Your task to perform on an android device: empty trash in the gmail app Image 0: 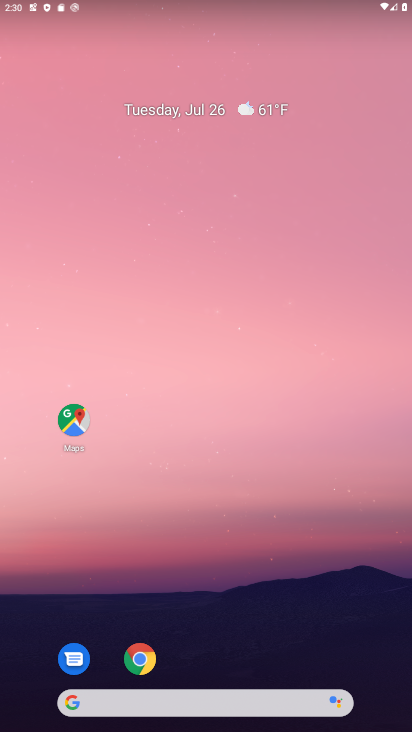
Step 0: drag from (215, 558) to (291, 0)
Your task to perform on an android device: empty trash in the gmail app Image 1: 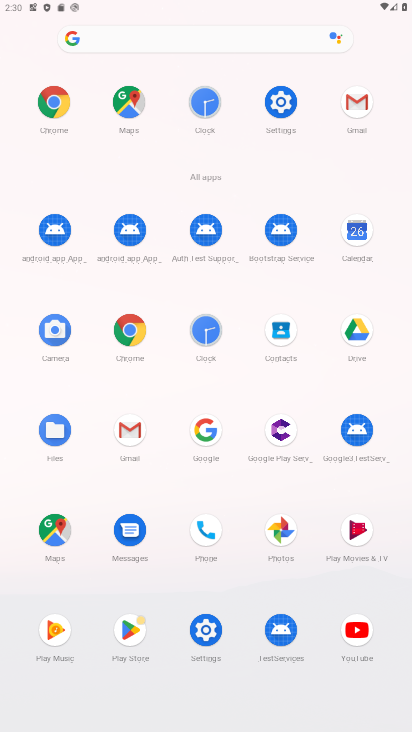
Step 1: click (355, 115)
Your task to perform on an android device: empty trash in the gmail app Image 2: 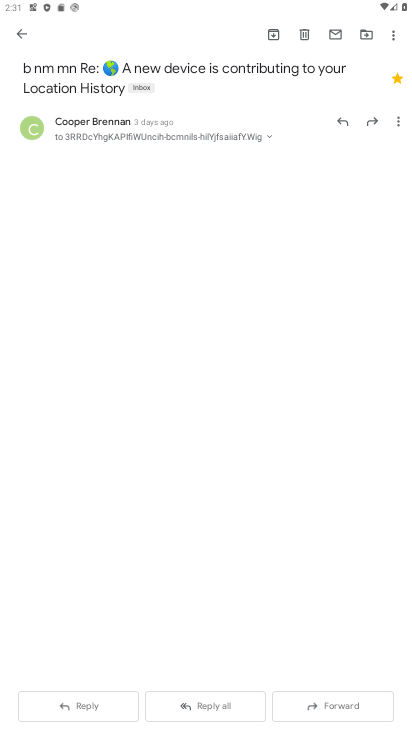
Step 2: click (22, 31)
Your task to perform on an android device: empty trash in the gmail app Image 3: 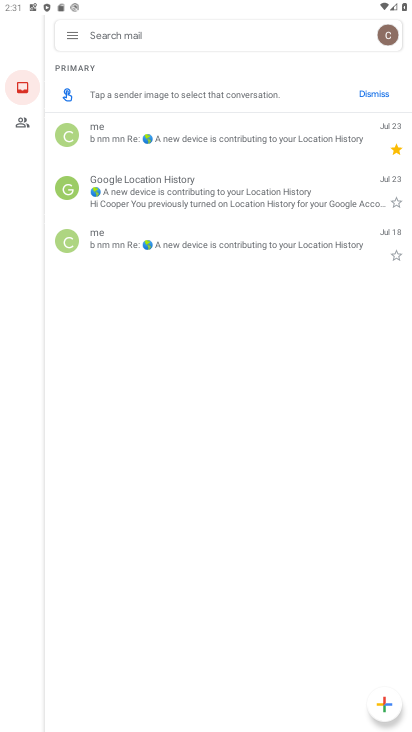
Step 3: click (71, 33)
Your task to perform on an android device: empty trash in the gmail app Image 4: 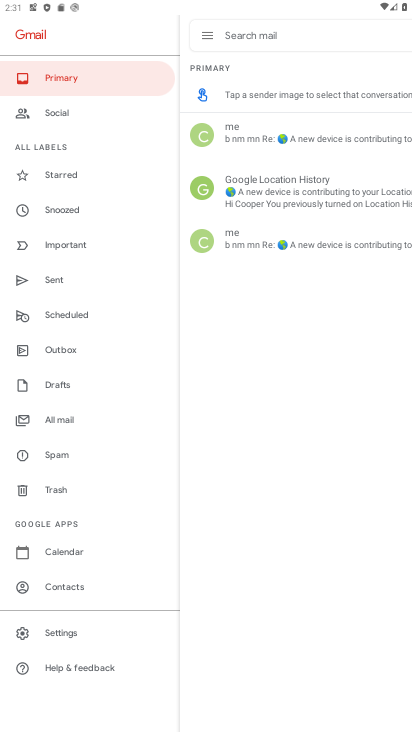
Step 4: click (59, 477)
Your task to perform on an android device: empty trash in the gmail app Image 5: 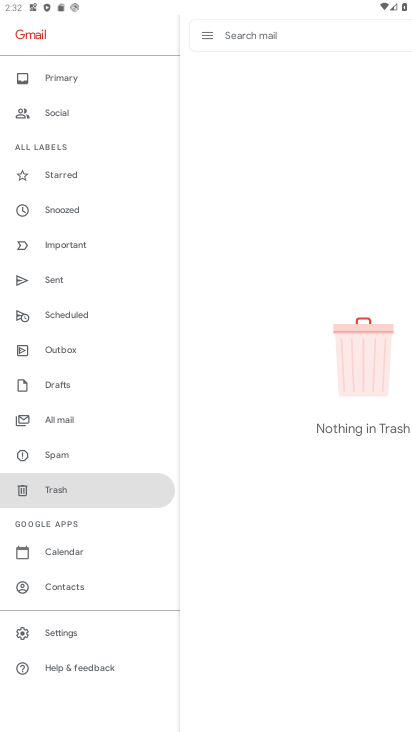
Step 5: task complete